Your task to perform on an android device: Toggle the flashlight Image 0: 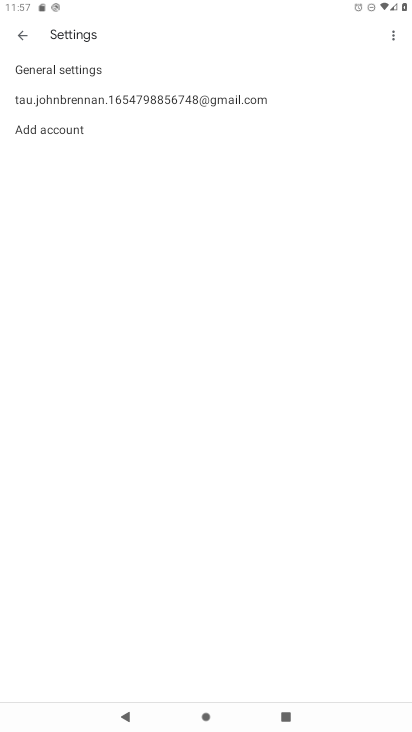
Step 0: press home button
Your task to perform on an android device: Toggle the flashlight Image 1: 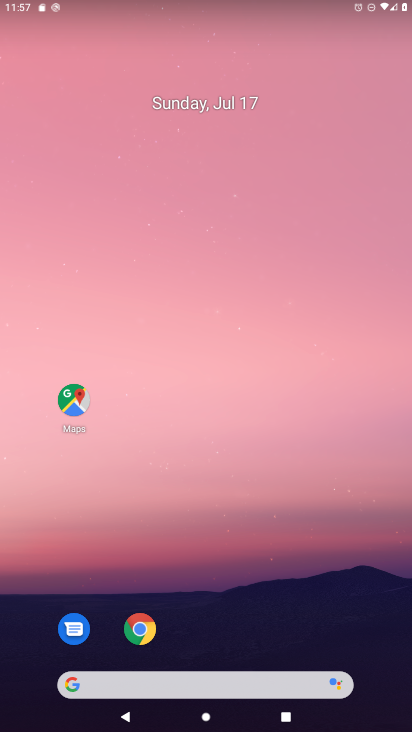
Step 1: drag from (224, 681) to (265, 76)
Your task to perform on an android device: Toggle the flashlight Image 2: 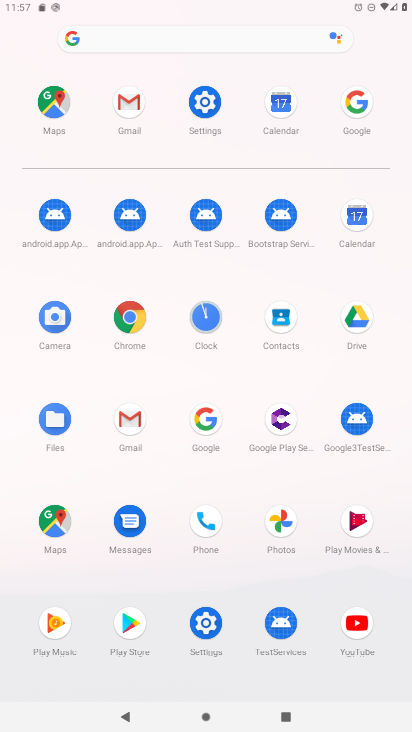
Step 2: click (208, 618)
Your task to perform on an android device: Toggle the flashlight Image 3: 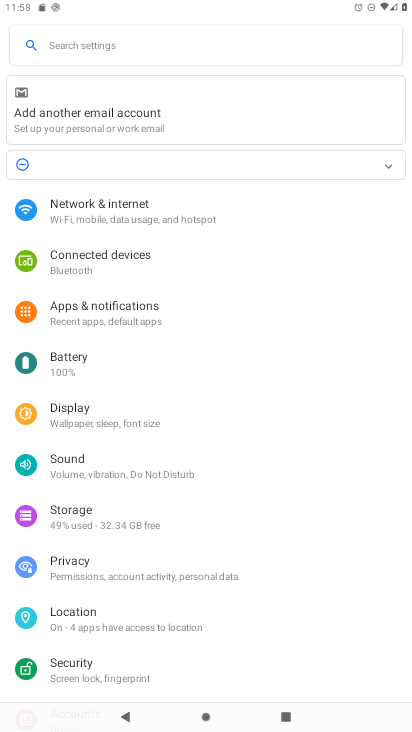
Step 3: click (100, 427)
Your task to perform on an android device: Toggle the flashlight Image 4: 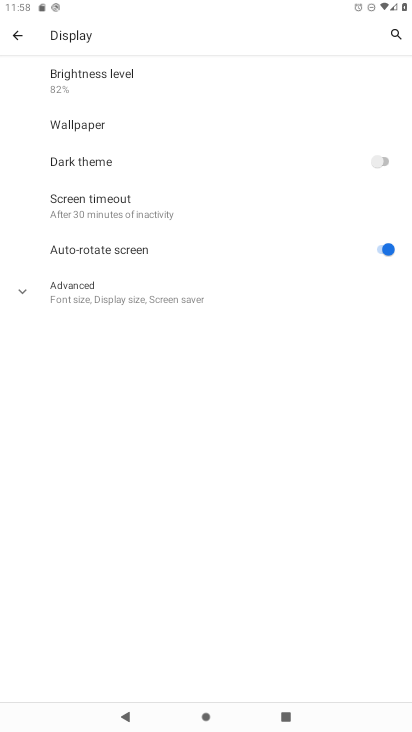
Step 4: press back button
Your task to perform on an android device: Toggle the flashlight Image 5: 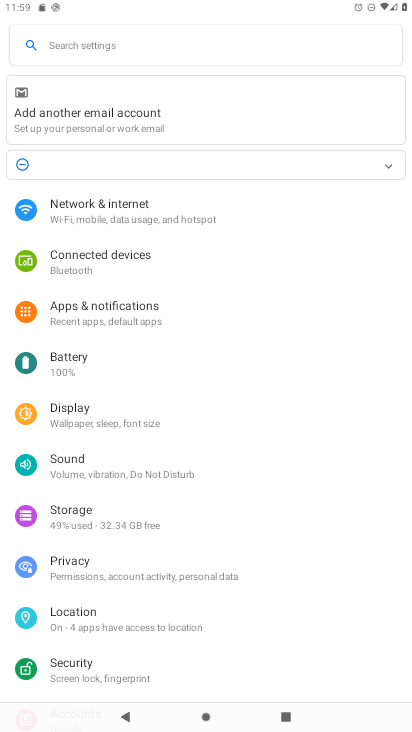
Step 5: click (96, 320)
Your task to perform on an android device: Toggle the flashlight Image 6: 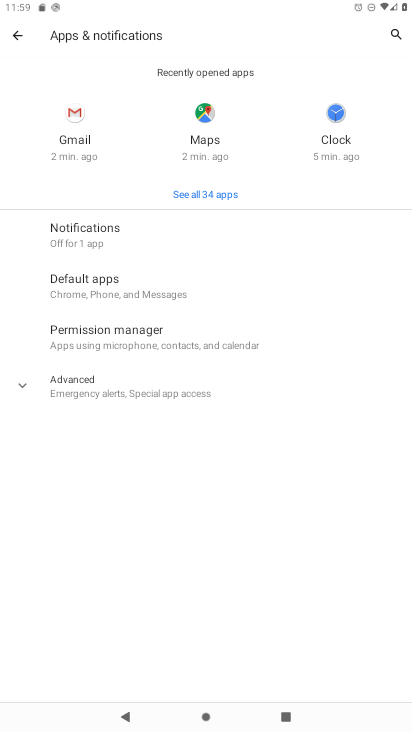
Step 6: click (93, 250)
Your task to perform on an android device: Toggle the flashlight Image 7: 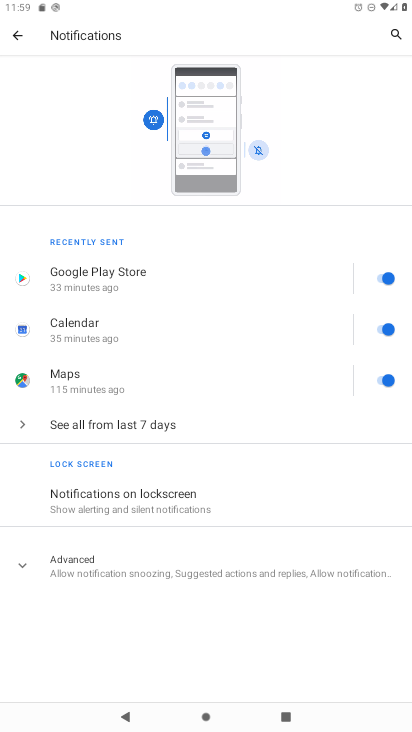
Step 7: click (104, 578)
Your task to perform on an android device: Toggle the flashlight Image 8: 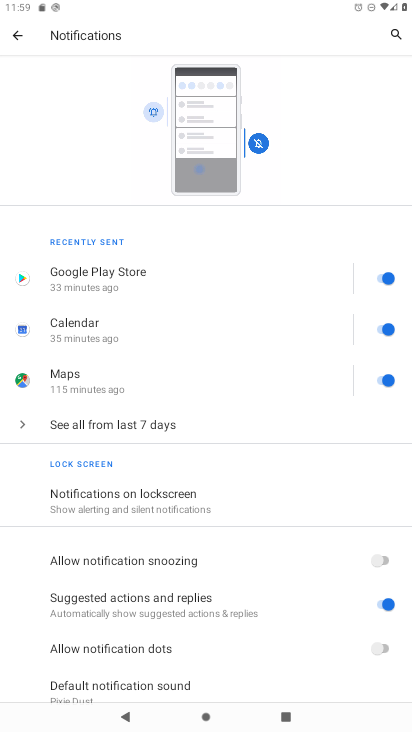
Step 8: press back button
Your task to perform on an android device: Toggle the flashlight Image 9: 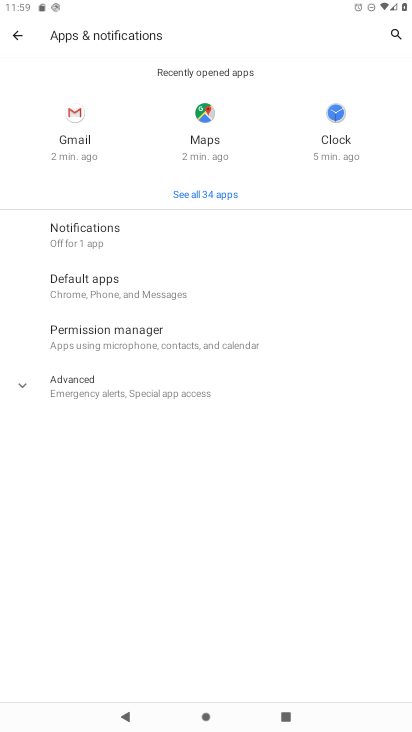
Step 9: click (102, 397)
Your task to perform on an android device: Toggle the flashlight Image 10: 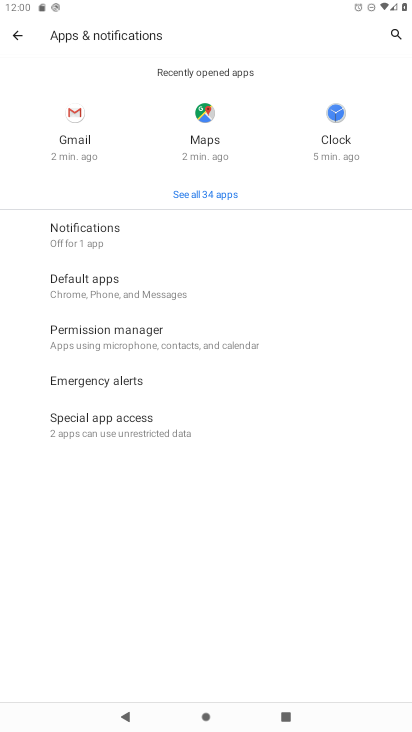
Step 10: click (107, 430)
Your task to perform on an android device: Toggle the flashlight Image 11: 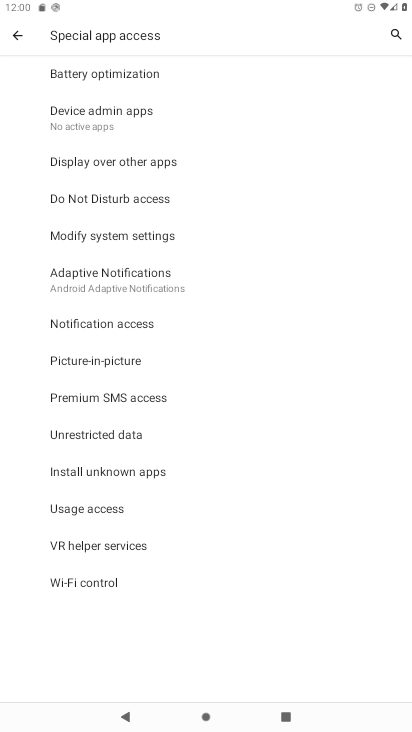
Step 11: task complete